Your task to perform on an android device: Open eBay Image 0: 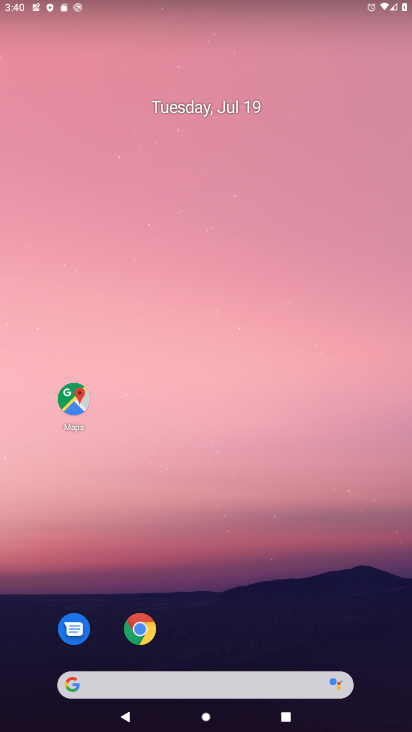
Step 0: click (136, 629)
Your task to perform on an android device: Open eBay Image 1: 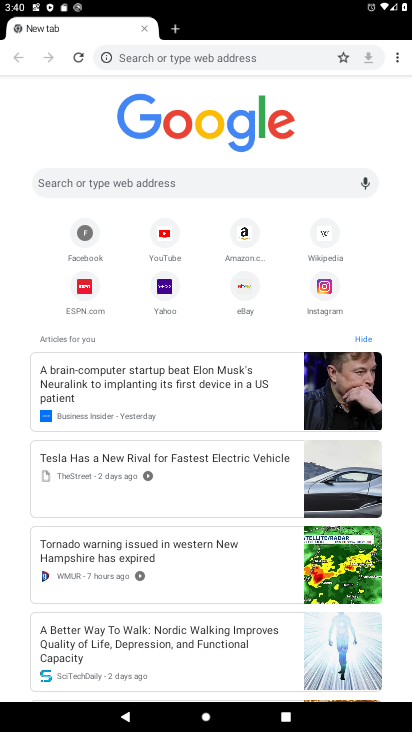
Step 1: click (251, 283)
Your task to perform on an android device: Open eBay Image 2: 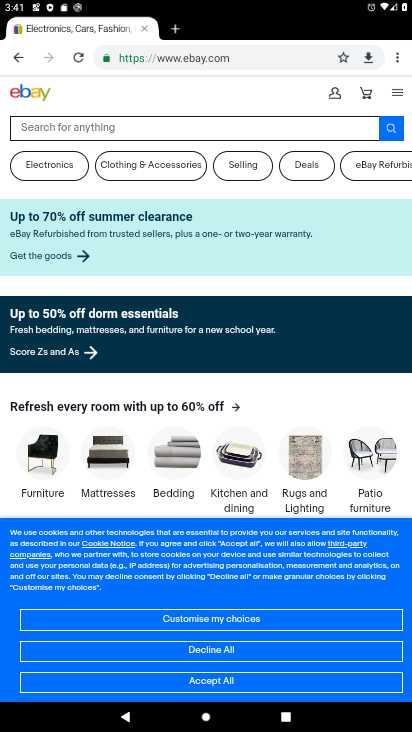
Step 2: task complete